Your task to perform on an android device: turn off translation in the chrome app Image 0: 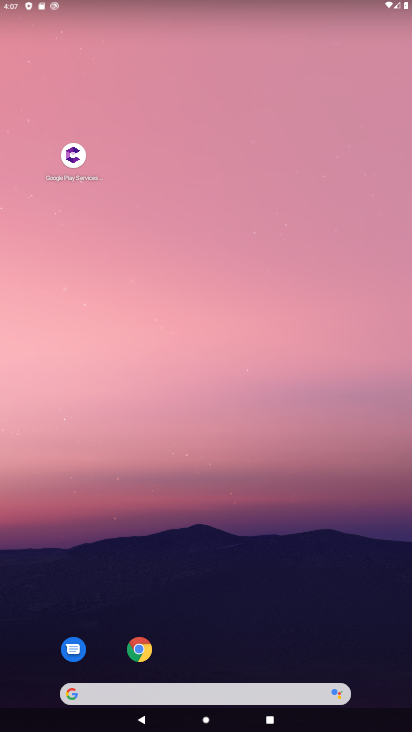
Step 0: click (140, 647)
Your task to perform on an android device: turn off translation in the chrome app Image 1: 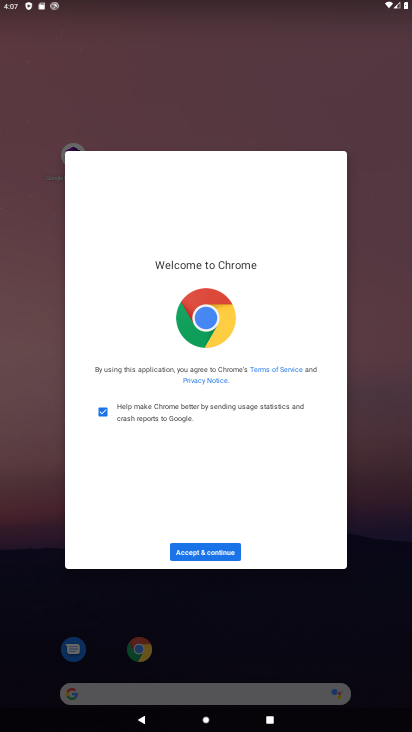
Step 1: click (195, 550)
Your task to perform on an android device: turn off translation in the chrome app Image 2: 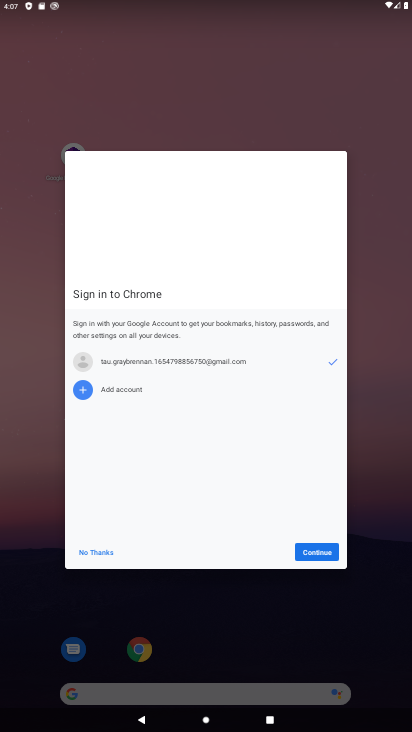
Step 2: click (311, 553)
Your task to perform on an android device: turn off translation in the chrome app Image 3: 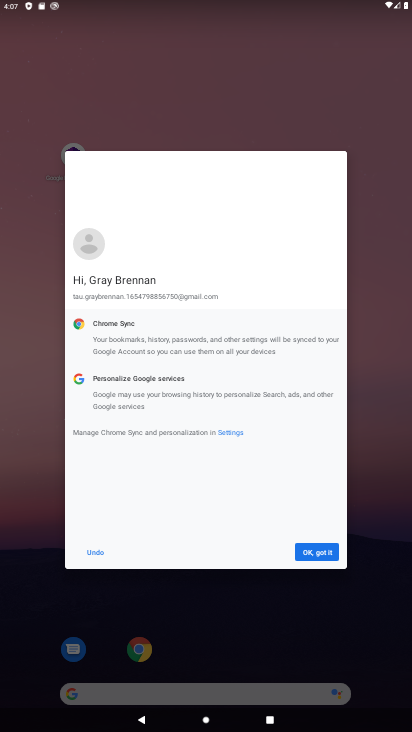
Step 3: click (315, 552)
Your task to perform on an android device: turn off translation in the chrome app Image 4: 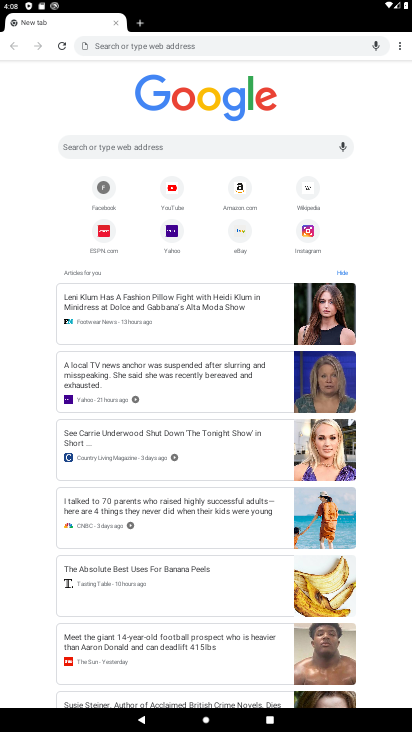
Step 4: click (401, 43)
Your task to perform on an android device: turn off translation in the chrome app Image 5: 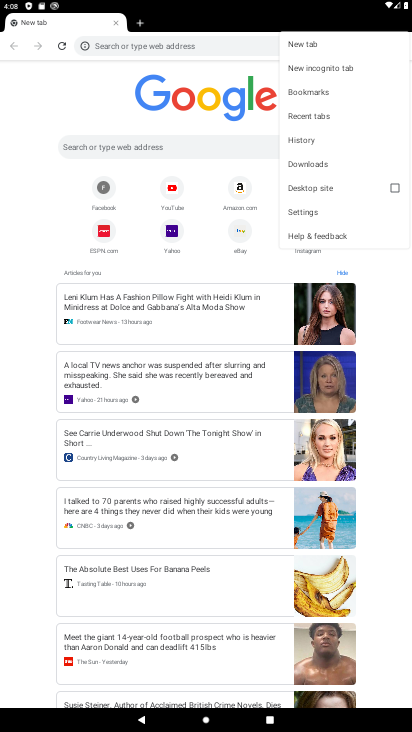
Step 5: click (309, 214)
Your task to perform on an android device: turn off translation in the chrome app Image 6: 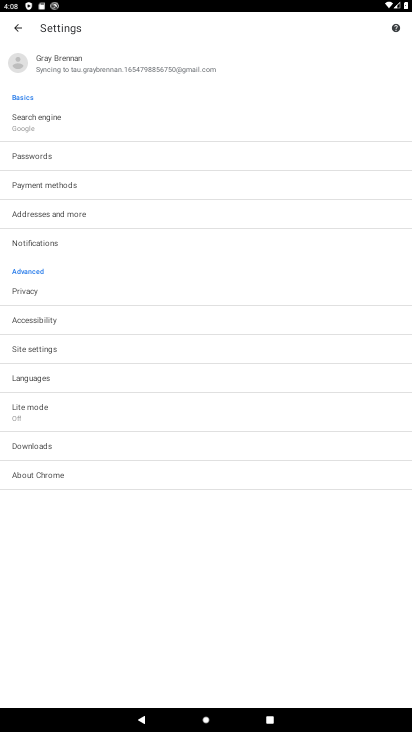
Step 6: click (39, 378)
Your task to perform on an android device: turn off translation in the chrome app Image 7: 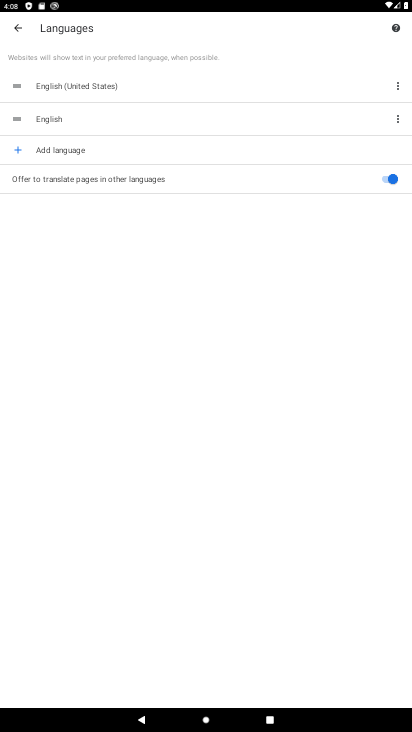
Step 7: click (389, 182)
Your task to perform on an android device: turn off translation in the chrome app Image 8: 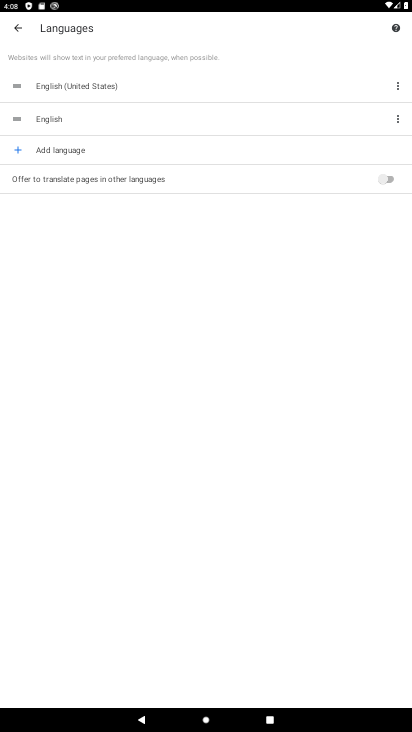
Step 8: task complete